Your task to perform on an android device: Empty the shopping cart on costco.com. Add "sony triple a" to the cart on costco.com, then select checkout. Image 0: 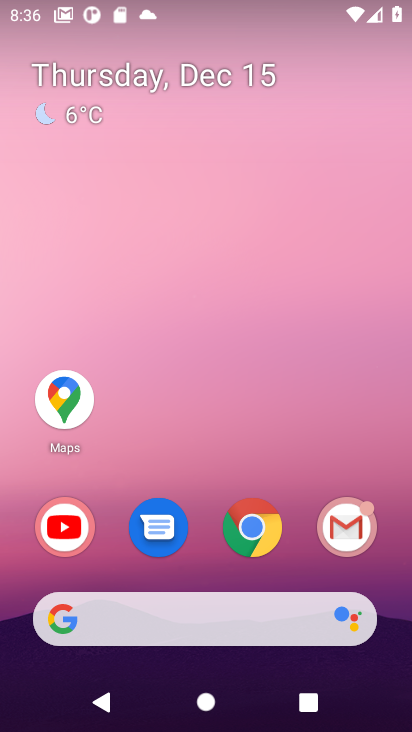
Step 0: click (211, 516)
Your task to perform on an android device: Empty the shopping cart on costco.com. Add "sony triple a" to the cart on costco.com, then select checkout. Image 1: 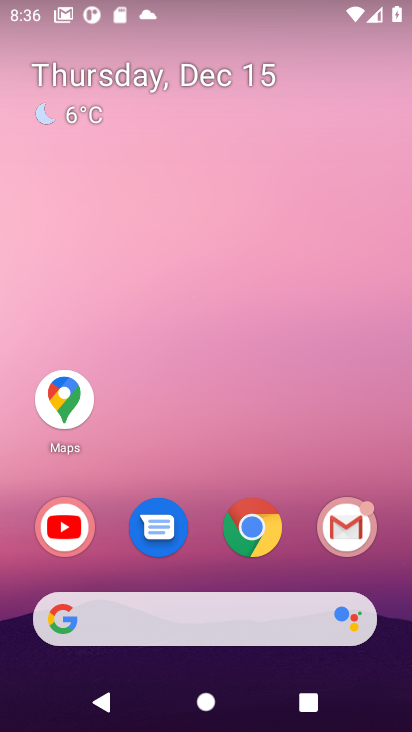
Step 1: click (211, 516)
Your task to perform on an android device: Empty the shopping cart on costco.com. Add "sony triple a" to the cart on costco.com, then select checkout. Image 2: 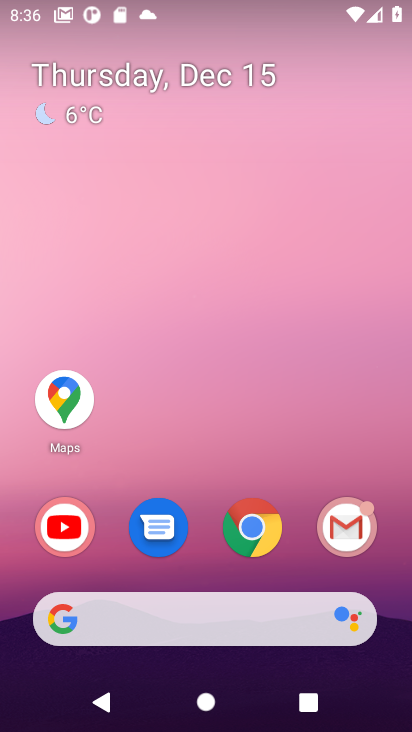
Step 2: click (231, 517)
Your task to perform on an android device: Empty the shopping cart on costco.com. Add "sony triple a" to the cart on costco.com, then select checkout. Image 3: 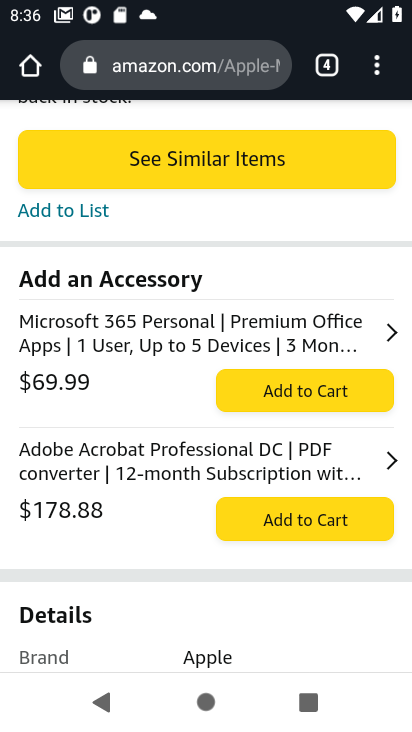
Step 3: click (197, 84)
Your task to perform on an android device: Empty the shopping cart on costco.com. Add "sony triple a" to the cart on costco.com, then select checkout. Image 4: 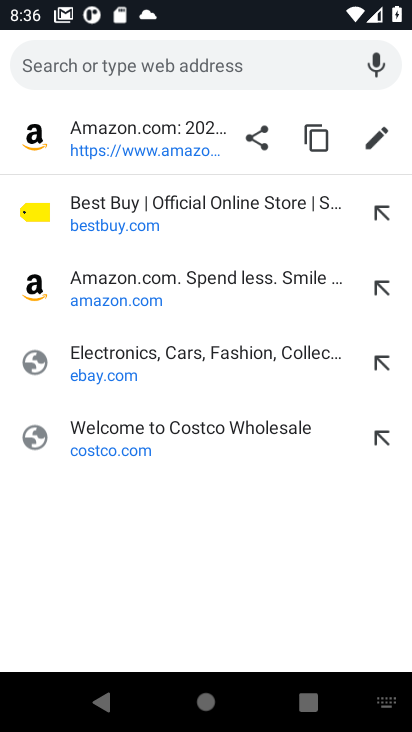
Step 4: click (167, 439)
Your task to perform on an android device: Empty the shopping cart on costco.com. Add "sony triple a" to the cart on costco.com, then select checkout. Image 5: 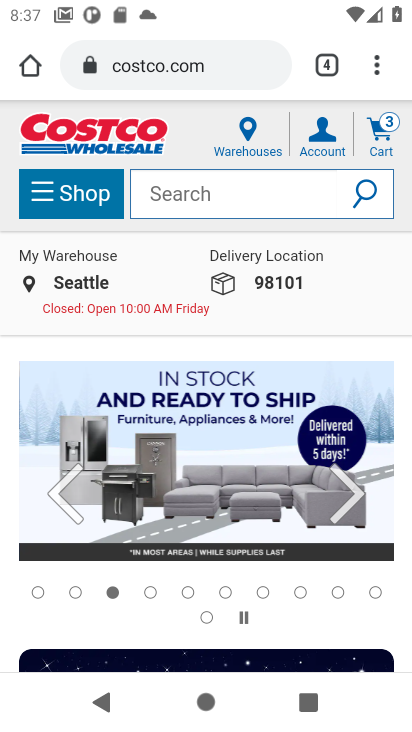
Step 5: click (229, 205)
Your task to perform on an android device: Empty the shopping cart on costco.com. Add "sony triple a" to the cart on costco.com, then select checkout. Image 6: 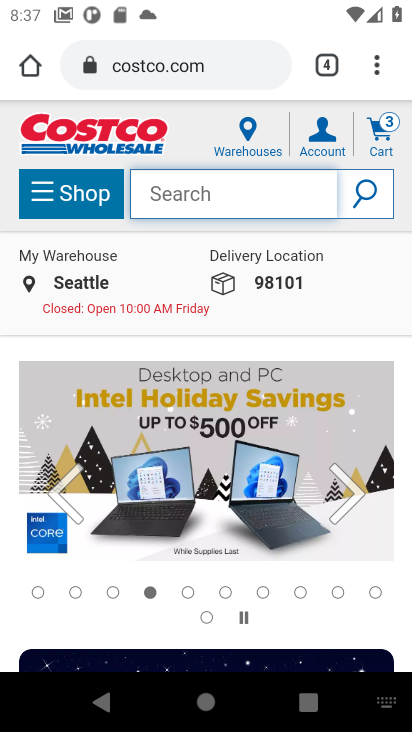
Step 6: type "sony triple a"
Your task to perform on an android device: Empty the shopping cart on costco.com. Add "sony triple a" to the cart on costco.com, then select checkout. Image 7: 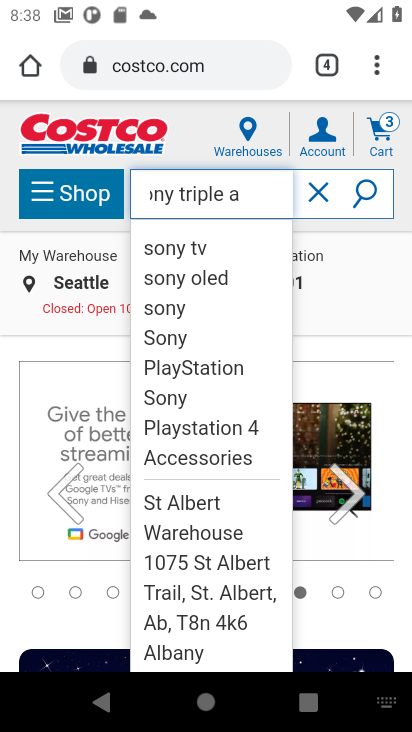
Step 7: click (377, 188)
Your task to perform on an android device: Empty the shopping cart on costco.com. Add "sony triple a" to the cart on costco.com, then select checkout. Image 8: 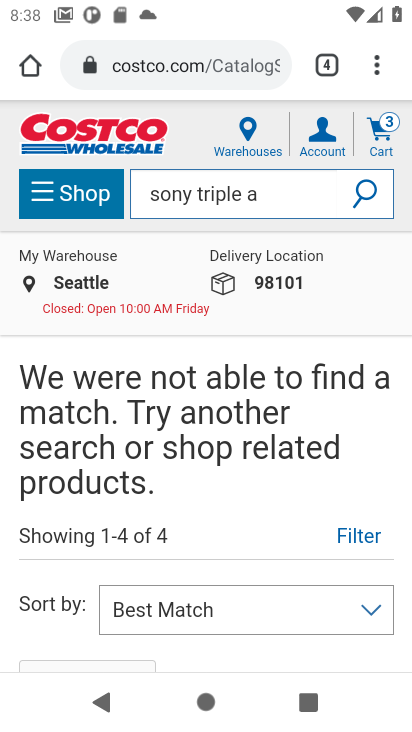
Step 8: task complete